Your task to perform on an android device: Open the map Image 0: 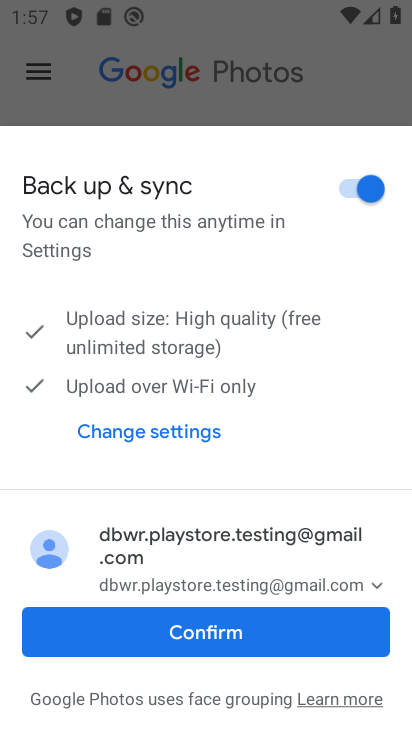
Step 0: press home button
Your task to perform on an android device: Open the map Image 1: 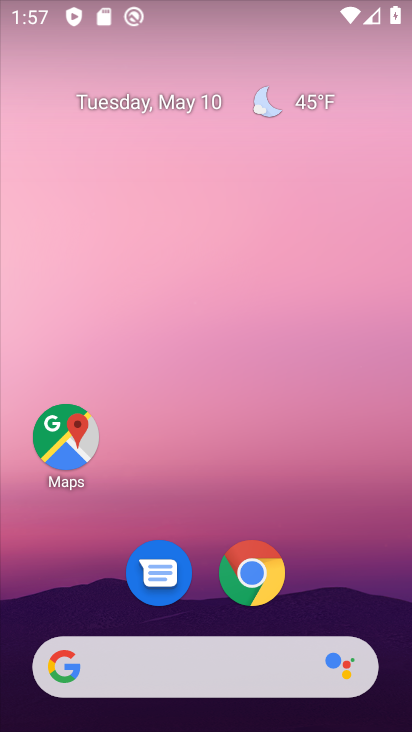
Step 1: click (78, 437)
Your task to perform on an android device: Open the map Image 2: 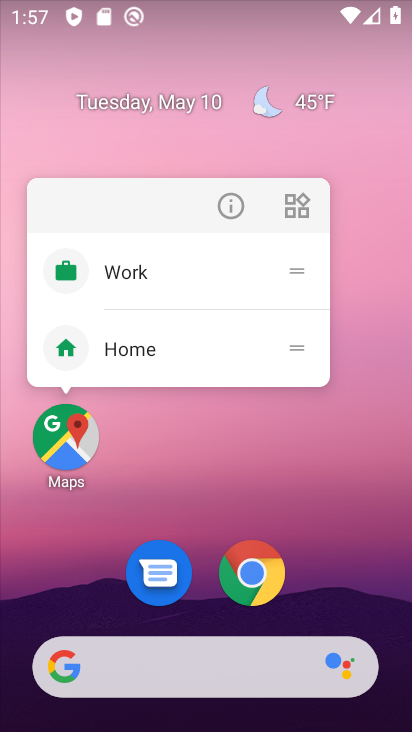
Step 2: click (77, 435)
Your task to perform on an android device: Open the map Image 3: 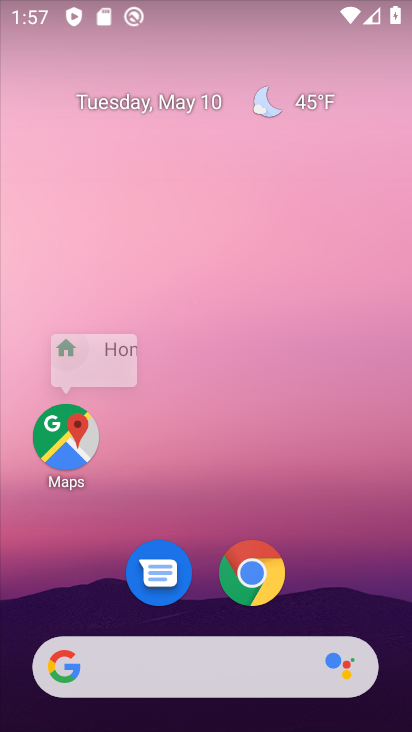
Step 3: click (77, 435)
Your task to perform on an android device: Open the map Image 4: 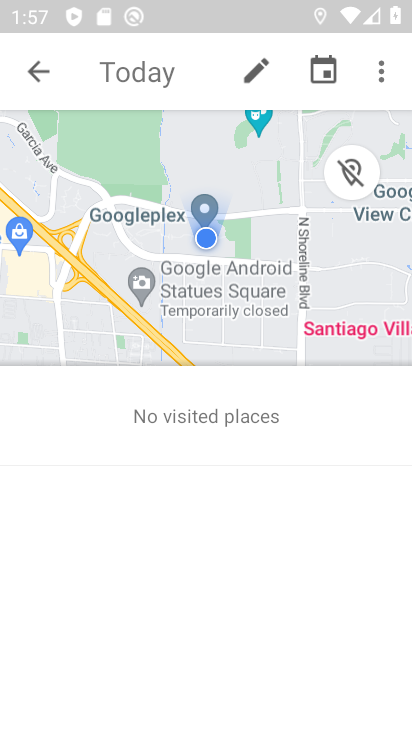
Step 4: task complete